Your task to perform on an android device: open a new tab in the chrome app Image 0: 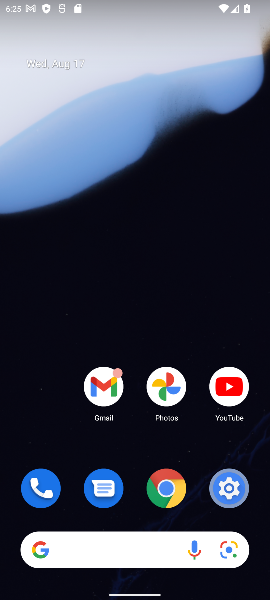
Step 0: drag from (143, 448) to (171, 81)
Your task to perform on an android device: open a new tab in the chrome app Image 1: 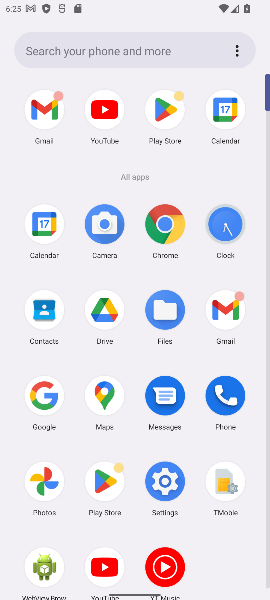
Step 1: click (165, 232)
Your task to perform on an android device: open a new tab in the chrome app Image 2: 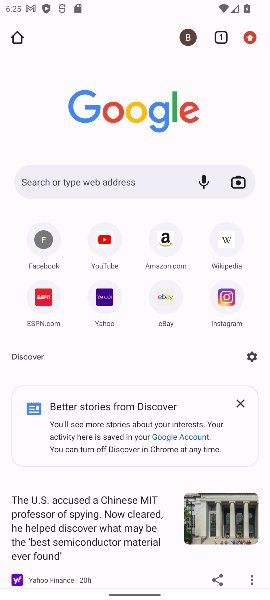
Step 2: click (252, 37)
Your task to perform on an android device: open a new tab in the chrome app Image 3: 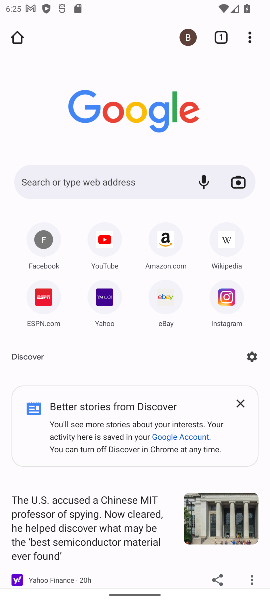
Step 3: task complete